Your task to perform on an android device: Search for sushi restaurants on Maps Image 0: 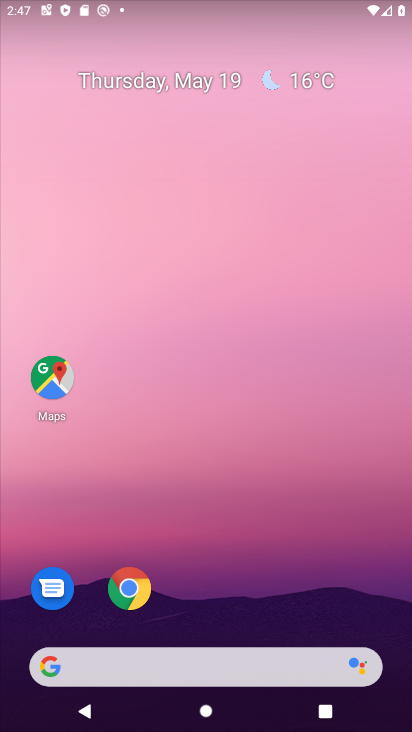
Step 0: click (58, 374)
Your task to perform on an android device: Search for sushi restaurants on Maps Image 1: 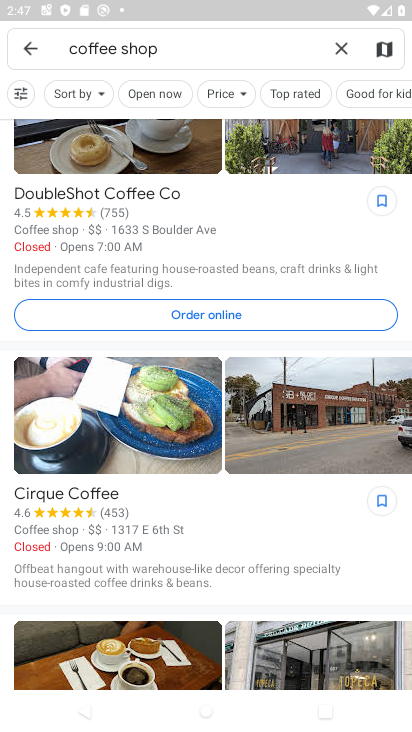
Step 1: click (246, 52)
Your task to perform on an android device: Search for sushi restaurants on Maps Image 2: 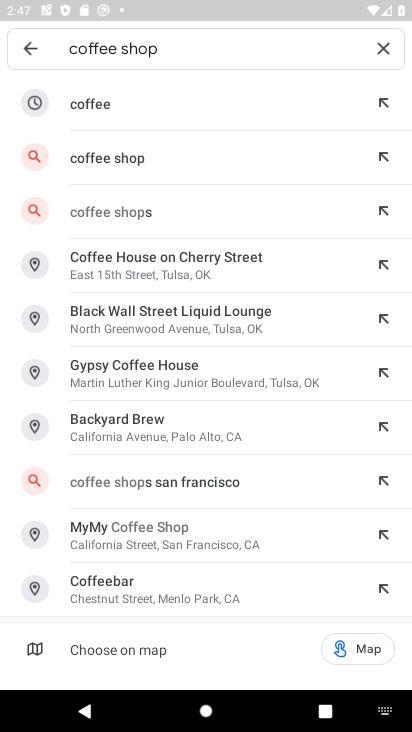
Step 2: click (380, 53)
Your task to perform on an android device: Search for sushi restaurants on Maps Image 3: 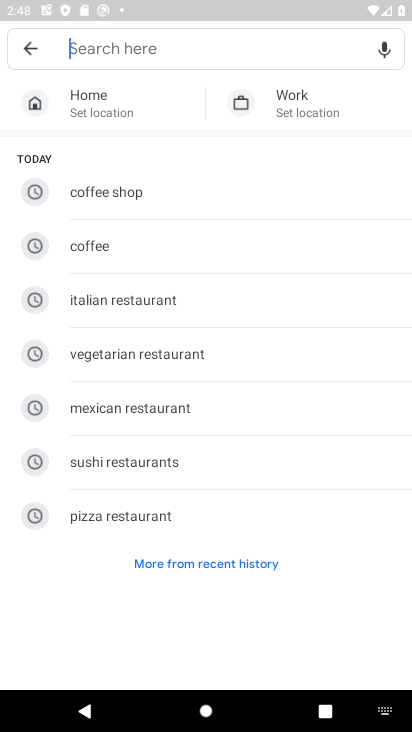
Step 3: click (178, 467)
Your task to perform on an android device: Search for sushi restaurants on Maps Image 4: 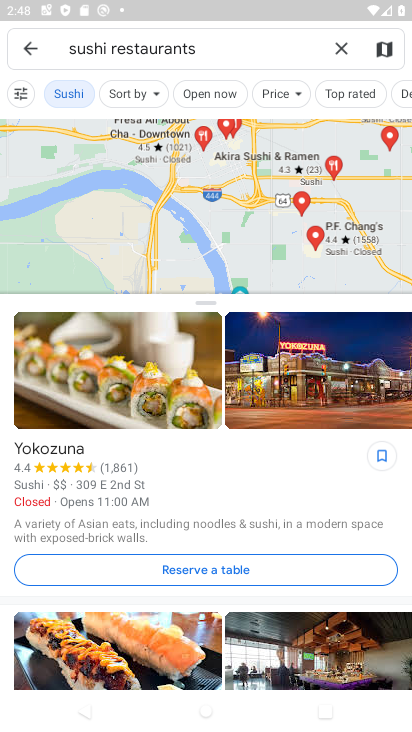
Step 4: task complete